Your task to perform on an android device: delete location history Image 0: 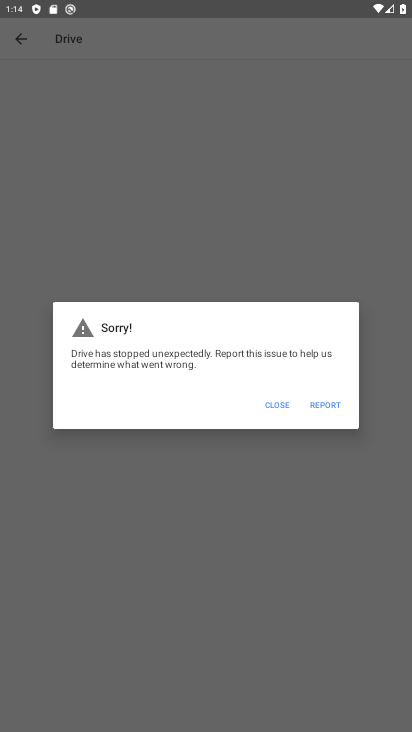
Step 0: press home button
Your task to perform on an android device: delete location history Image 1: 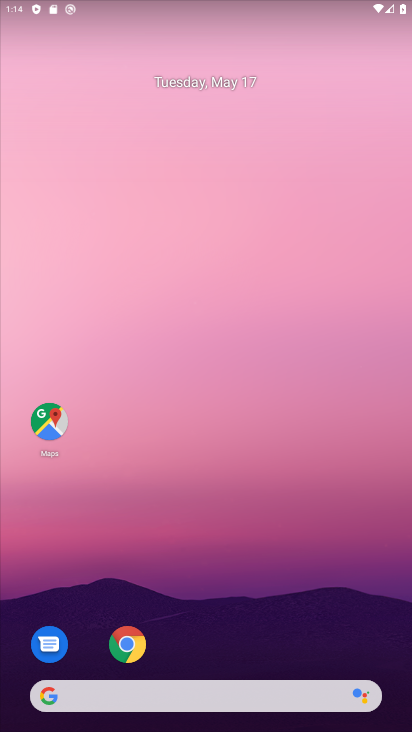
Step 1: drag from (223, 687) to (137, 2)
Your task to perform on an android device: delete location history Image 2: 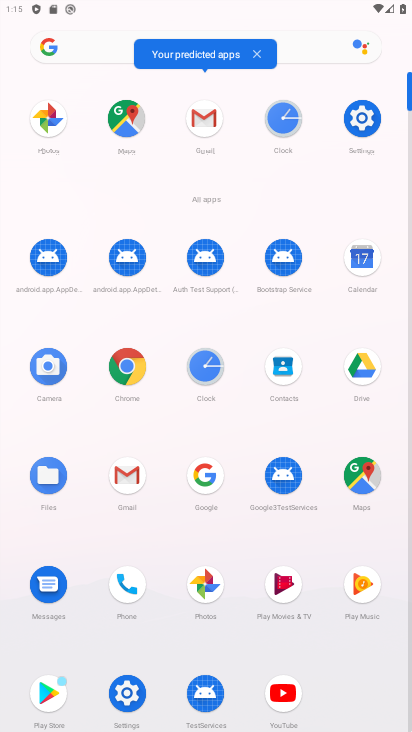
Step 2: click (130, 127)
Your task to perform on an android device: delete location history Image 3: 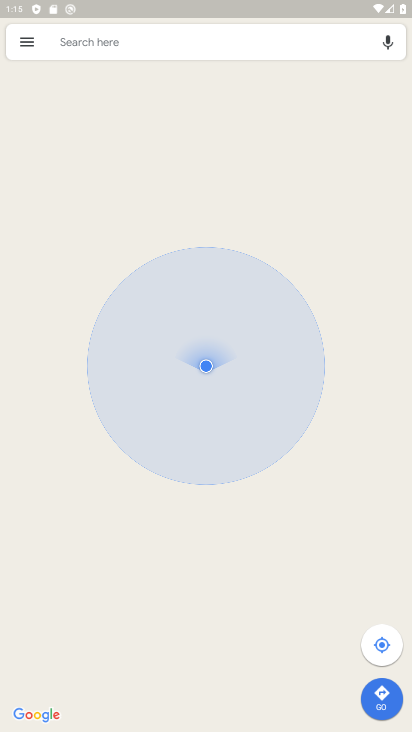
Step 3: click (26, 46)
Your task to perform on an android device: delete location history Image 4: 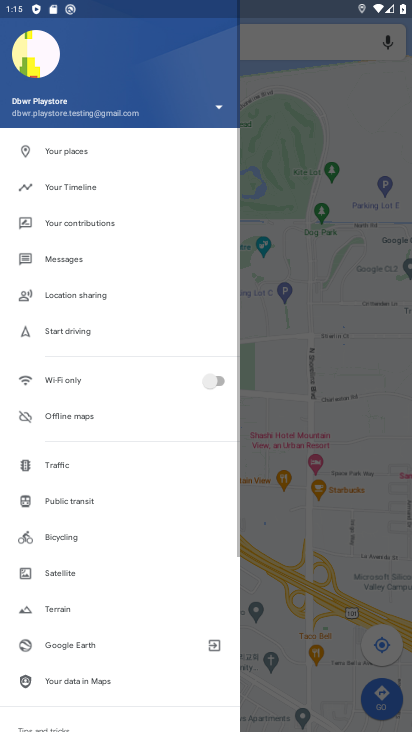
Step 4: click (66, 186)
Your task to perform on an android device: delete location history Image 5: 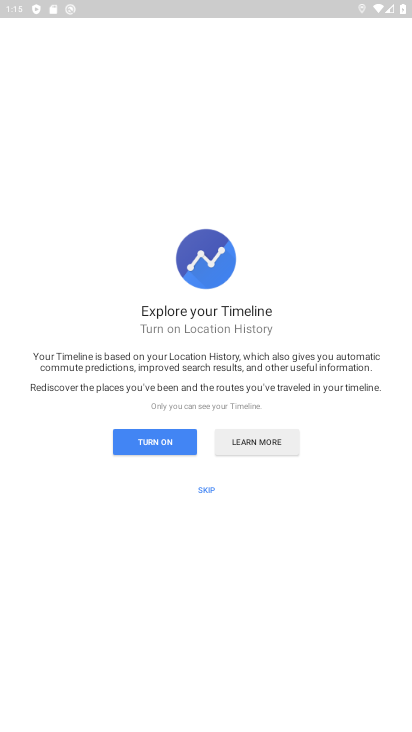
Step 5: click (175, 436)
Your task to perform on an android device: delete location history Image 6: 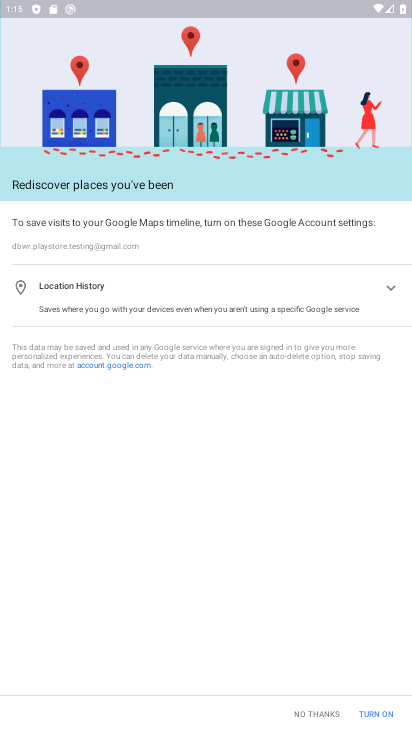
Step 6: click (372, 719)
Your task to perform on an android device: delete location history Image 7: 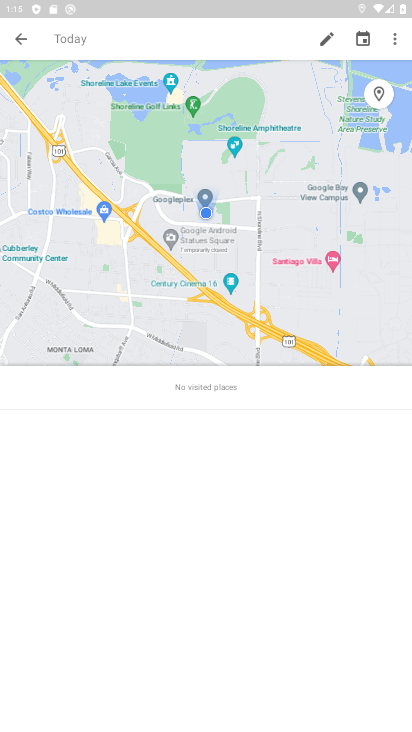
Step 7: click (397, 38)
Your task to perform on an android device: delete location history Image 8: 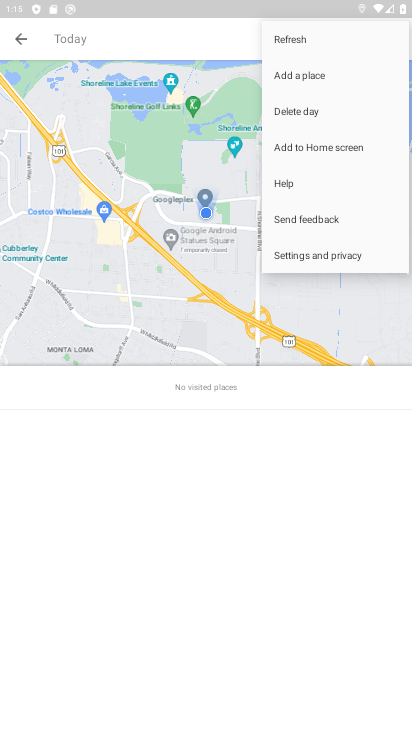
Step 8: click (325, 257)
Your task to perform on an android device: delete location history Image 9: 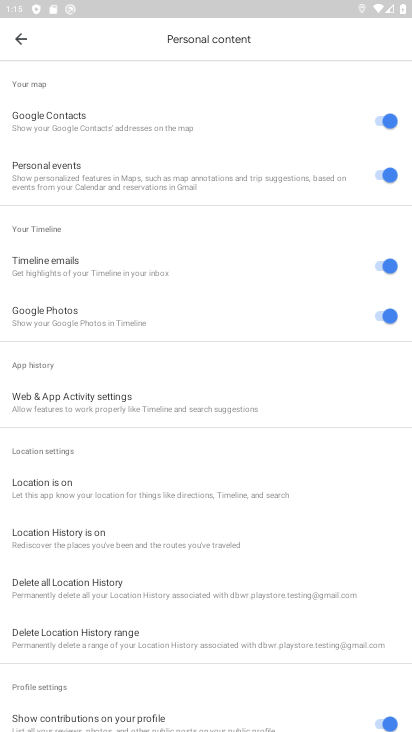
Step 9: drag from (246, 421) to (241, 70)
Your task to perform on an android device: delete location history Image 10: 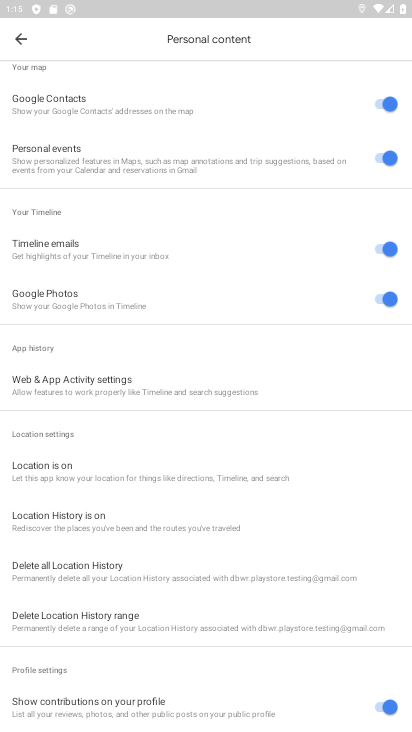
Step 10: drag from (204, 554) to (202, 64)
Your task to perform on an android device: delete location history Image 11: 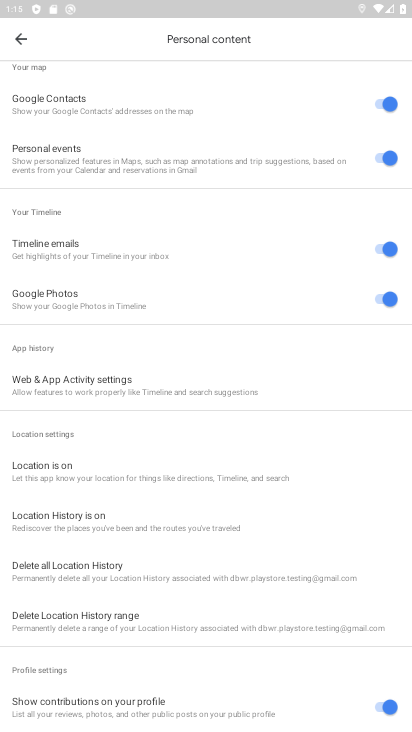
Step 11: click (126, 569)
Your task to perform on an android device: delete location history Image 12: 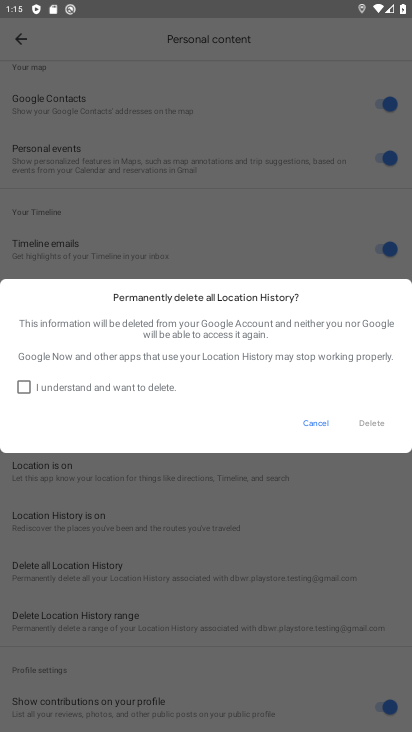
Step 12: click (28, 389)
Your task to perform on an android device: delete location history Image 13: 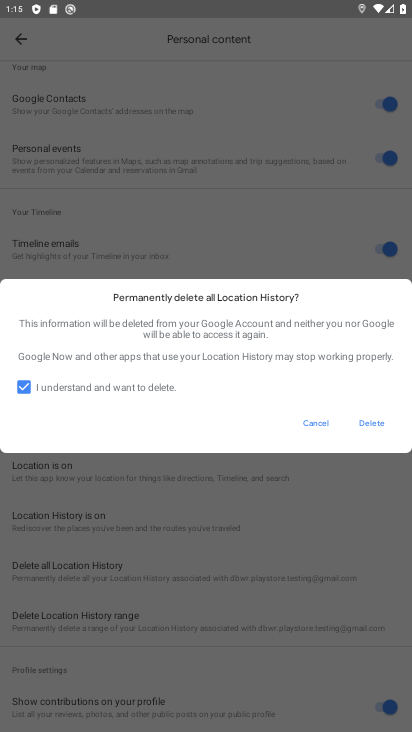
Step 13: click (380, 425)
Your task to perform on an android device: delete location history Image 14: 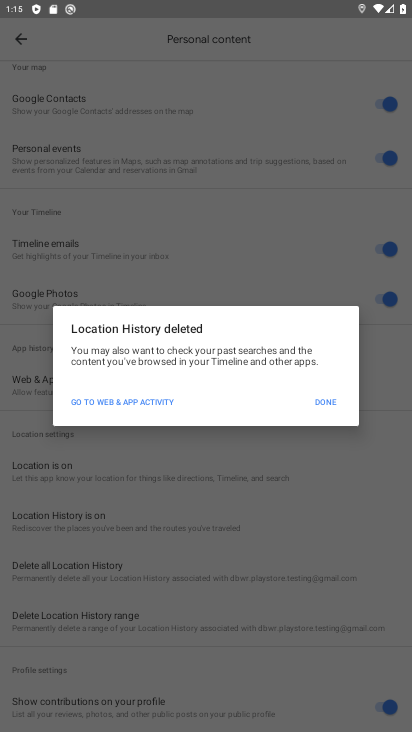
Step 14: task complete